Your task to perform on an android device: What's the weather going to be this weekend? Image 0: 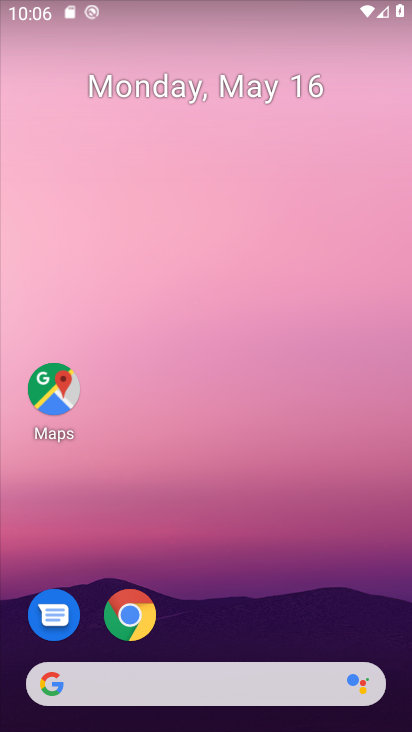
Step 0: drag from (235, 606) to (222, 25)
Your task to perform on an android device: What's the weather going to be this weekend? Image 1: 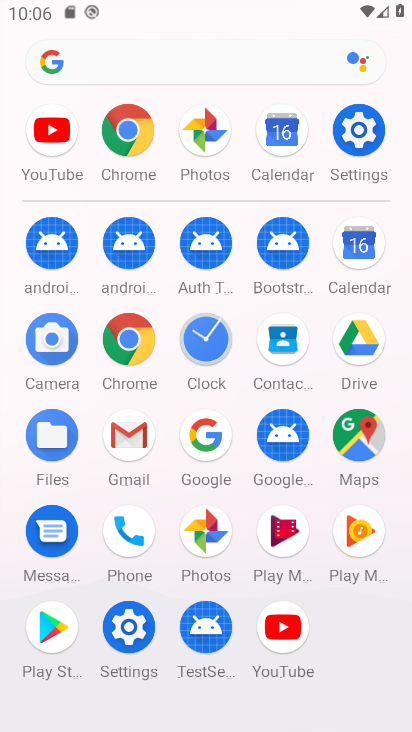
Step 1: drag from (7, 535) to (5, 221)
Your task to perform on an android device: What's the weather going to be this weekend? Image 2: 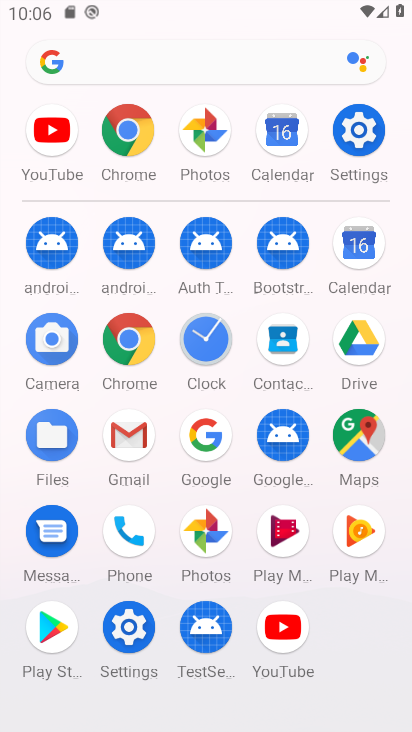
Step 2: drag from (11, 547) to (27, 270)
Your task to perform on an android device: What's the weather going to be this weekend? Image 3: 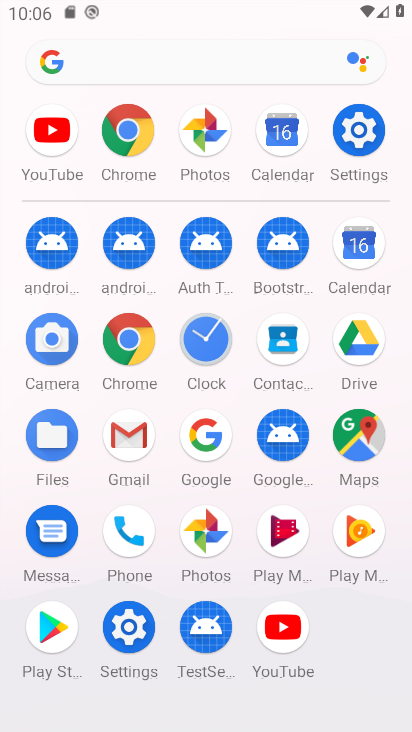
Step 3: drag from (0, 573) to (19, 301)
Your task to perform on an android device: What's the weather going to be this weekend? Image 4: 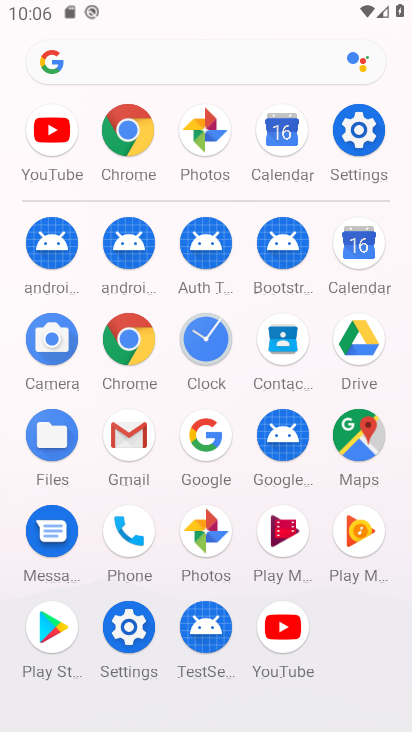
Step 4: drag from (6, 625) to (6, 372)
Your task to perform on an android device: What's the weather going to be this weekend? Image 5: 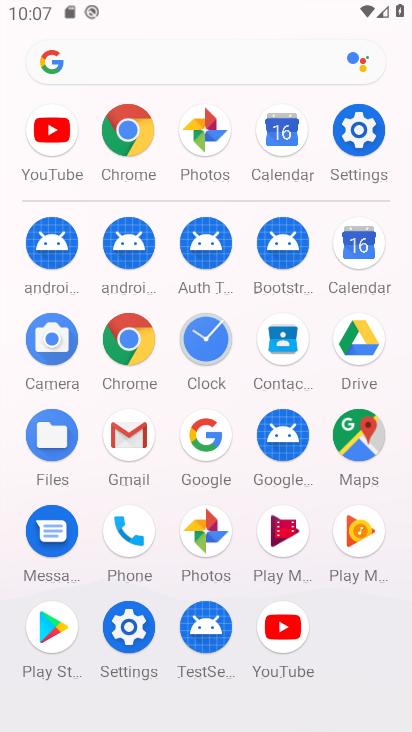
Step 5: click (129, 337)
Your task to perform on an android device: What's the weather going to be this weekend? Image 6: 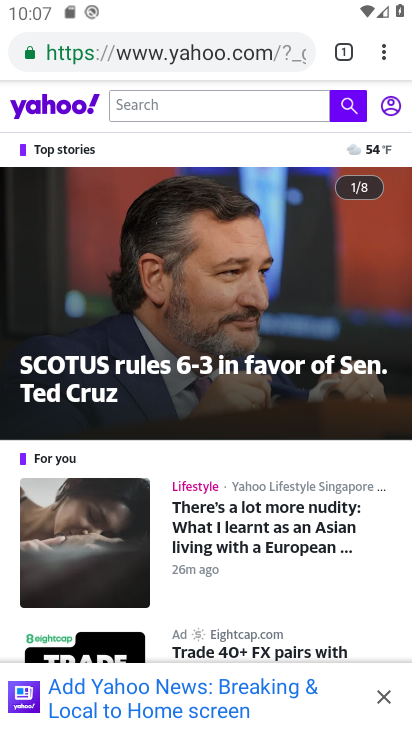
Step 6: click (173, 61)
Your task to perform on an android device: What's the weather going to be this weekend? Image 7: 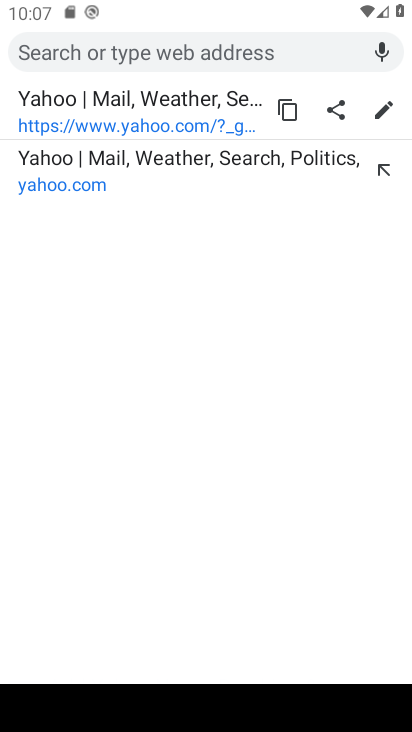
Step 7: type "What's the weather going to be this weekend?"
Your task to perform on an android device: What's the weather going to be this weekend? Image 8: 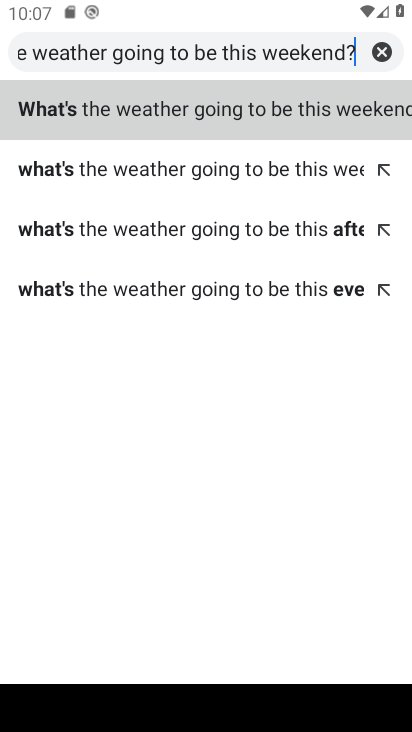
Step 8: type ""
Your task to perform on an android device: What's the weather going to be this weekend? Image 9: 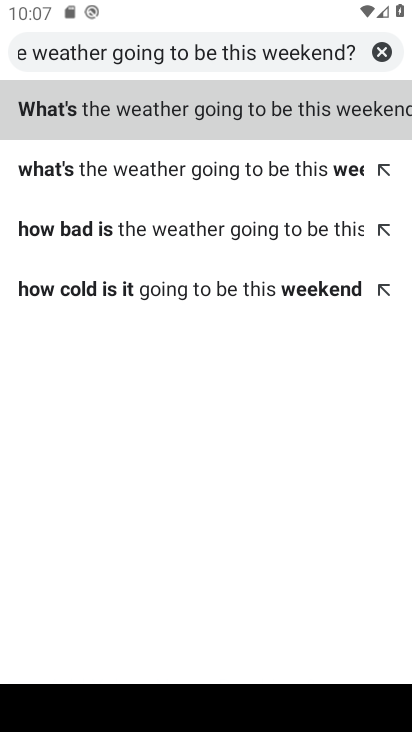
Step 9: click (212, 122)
Your task to perform on an android device: What's the weather going to be this weekend? Image 10: 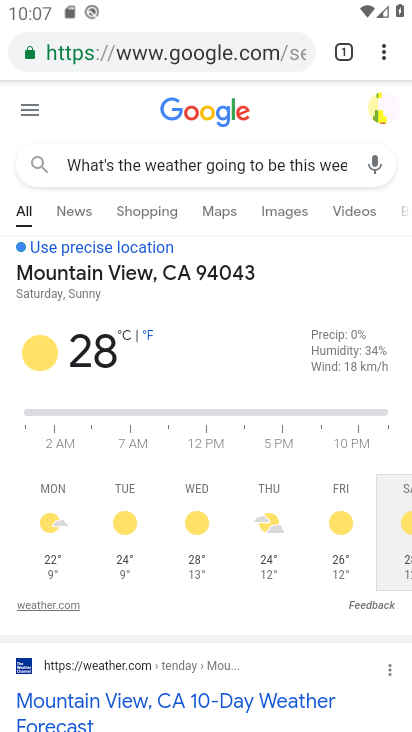
Step 10: task complete